Your task to perform on an android device: Open location settings Image 0: 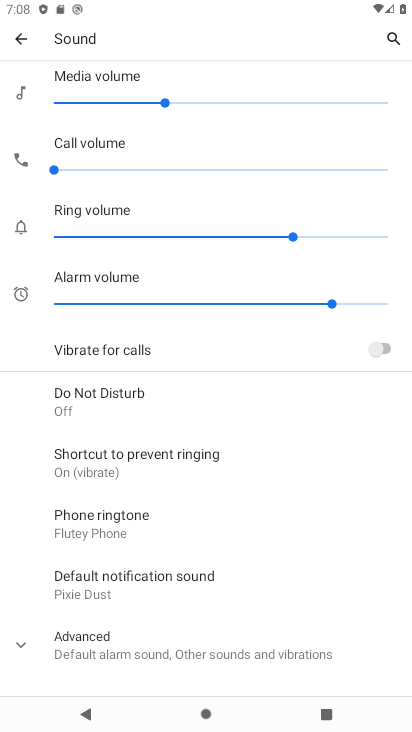
Step 0: press back button
Your task to perform on an android device: Open location settings Image 1: 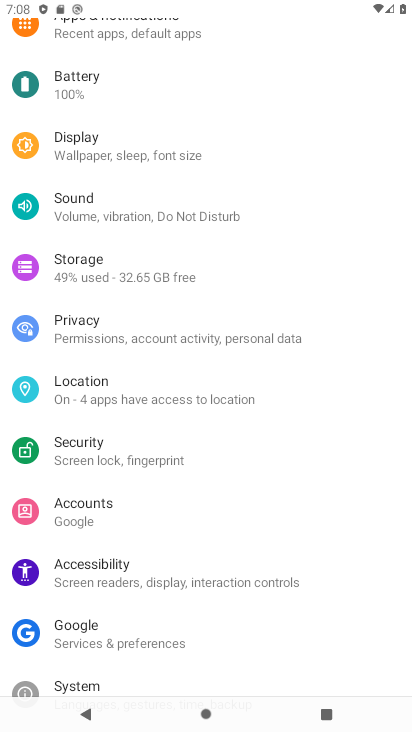
Step 1: press back button
Your task to perform on an android device: Open location settings Image 2: 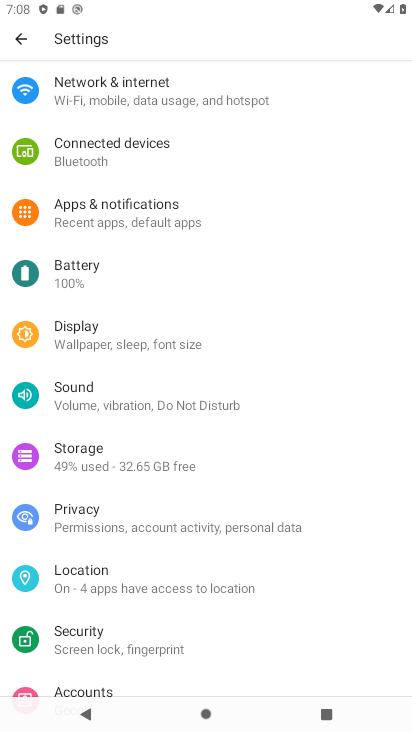
Step 2: drag from (178, 534) to (219, 427)
Your task to perform on an android device: Open location settings Image 3: 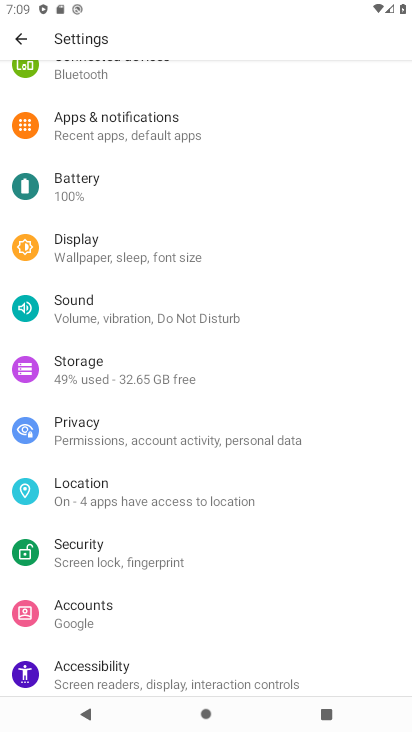
Step 3: click (108, 500)
Your task to perform on an android device: Open location settings Image 4: 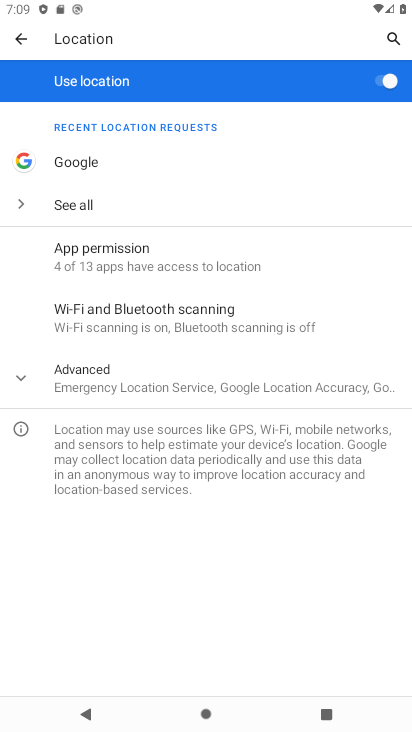
Step 4: task complete